Your task to perform on an android device: Search for "alienware area 51" on ebay.com, select the first entry, add it to the cart, then select checkout. Image 0: 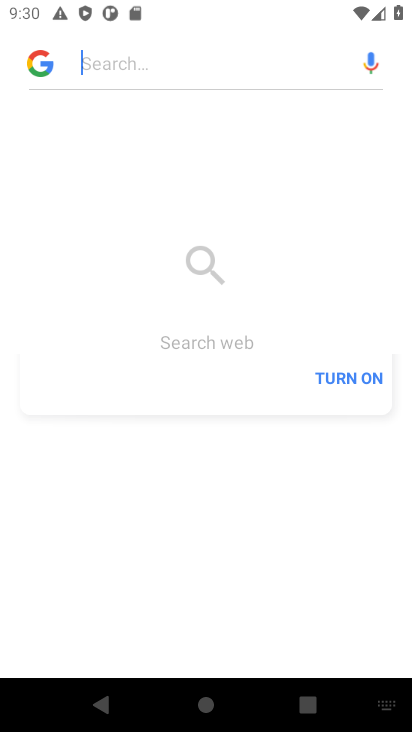
Step 0: press home button
Your task to perform on an android device: Search for "alienware area 51" on ebay.com, select the first entry, add it to the cart, then select checkout. Image 1: 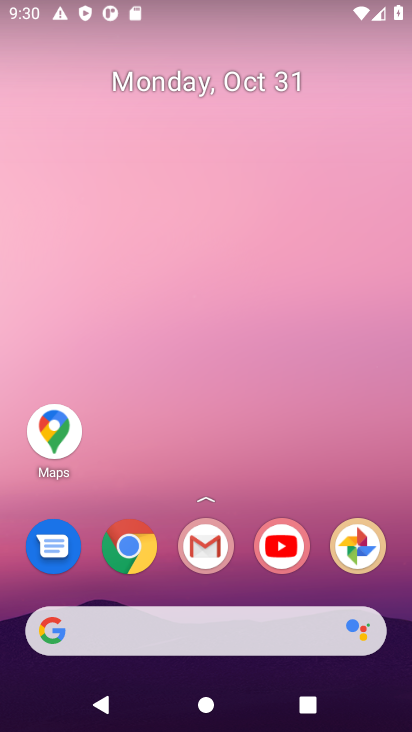
Step 1: click (131, 554)
Your task to perform on an android device: Search for "alienware area 51" on ebay.com, select the first entry, add it to the cart, then select checkout. Image 2: 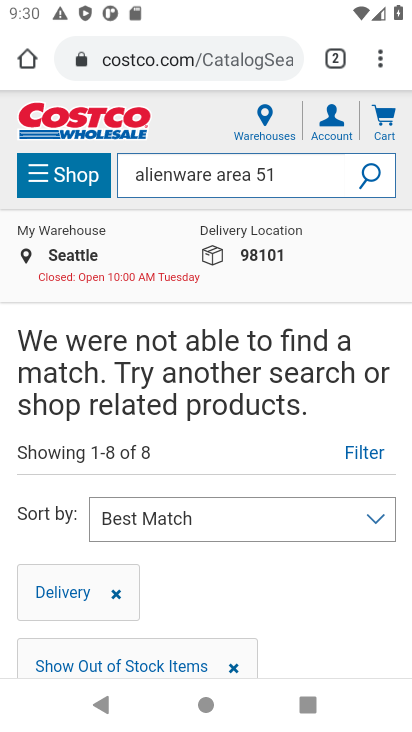
Step 2: click (154, 43)
Your task to perform on an android device: Search for "alienware area 51" on ebay.com, select the first entry, add it to the cart, then select checkout. Image 3: 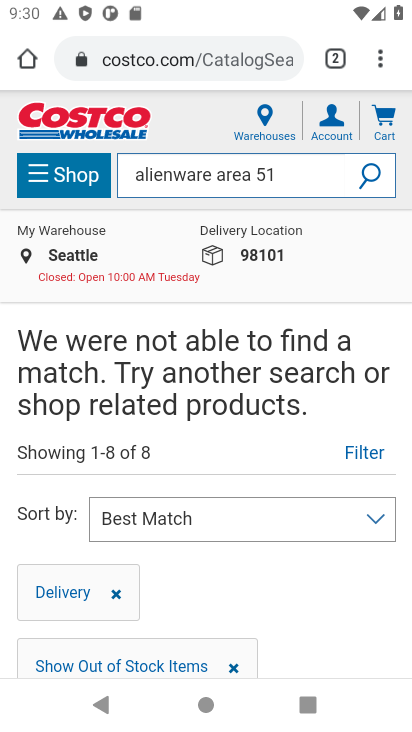
Step 3: click (155, 60)
Your task to perform on an android device: Search for "alienware area 51" on ebay.com, select the first entry, add it to the cart, then select checkout. Image 4: 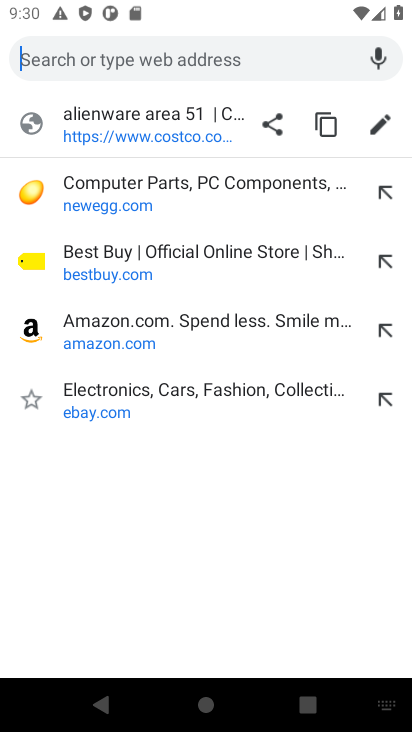
Step 4: type "ebay.com"
Your task to perform on an android device: Search for "alienware area 51" on ebay.com, select the first entry, add it to the cart, then select checkout. Image 5: 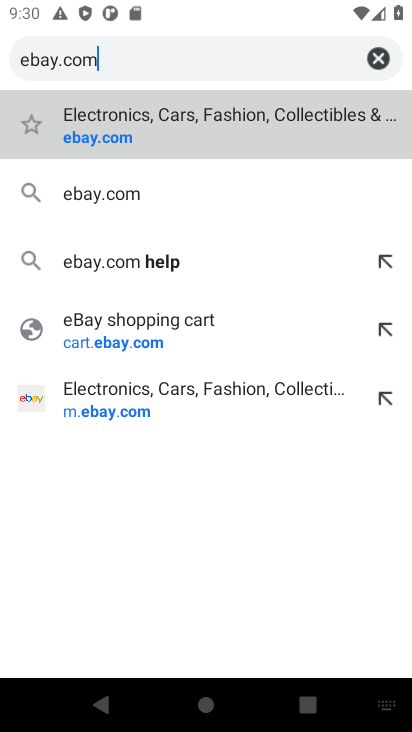
Step 5: press enter
Your task to perform on an android device: Search for "alienware area 51" on ebay.com, select the first entry, add it to the cart, then select checkout. Image 6: 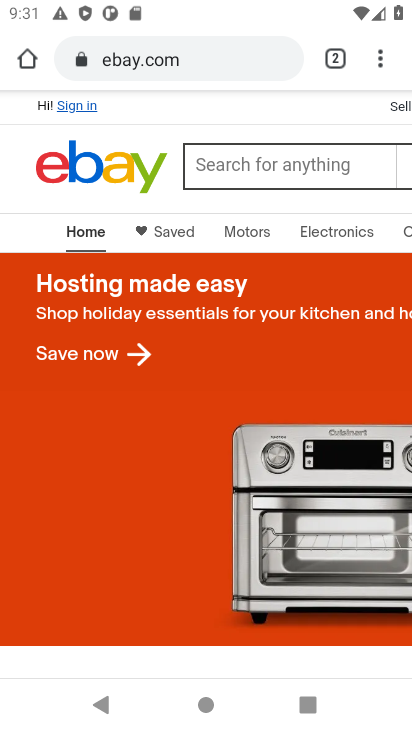
Step 6: click (278, 164)
Your task to perform on an android device: Search for "alienware area 51" on ebay.com, select the first entry, add it to the cart, then select checkout. Image 7: 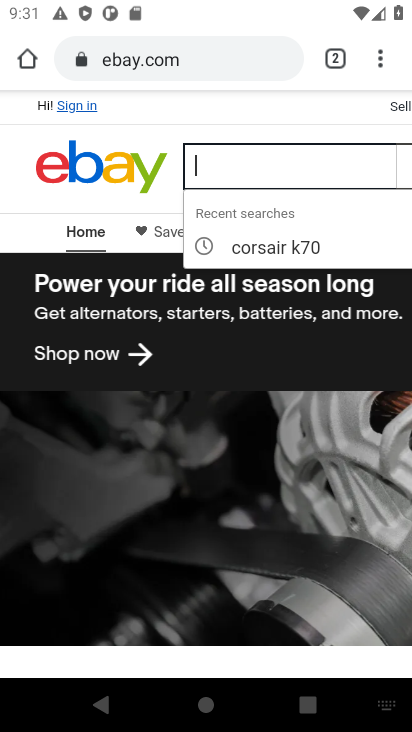
Step 7: type "alienware area 51"
Your task to perform on an android device: Search for "alienware area 51" on ebay.com, select the first entry, add it to the cart, then select checkout. Image 8: 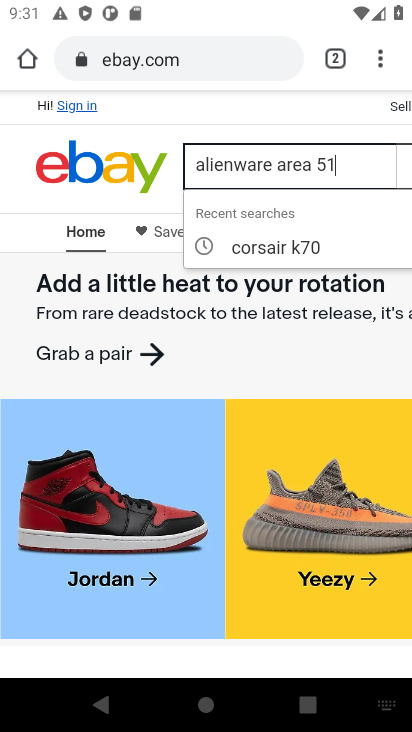
Step 8: press enter
Your task to perform on an android device: Search for "alienware area 51" on ebay.com, select the first entry, add it to the cart, then select checkout. Image 9: 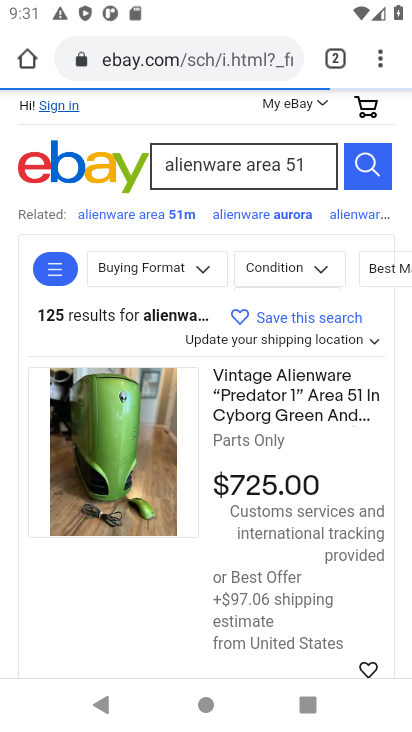
Step 9: click (141, 496)
Your task to perform on an android device: Search for "alienware area 51" on ebay.com, select the first entry, add it to the cart, then select checkout. Image 10: 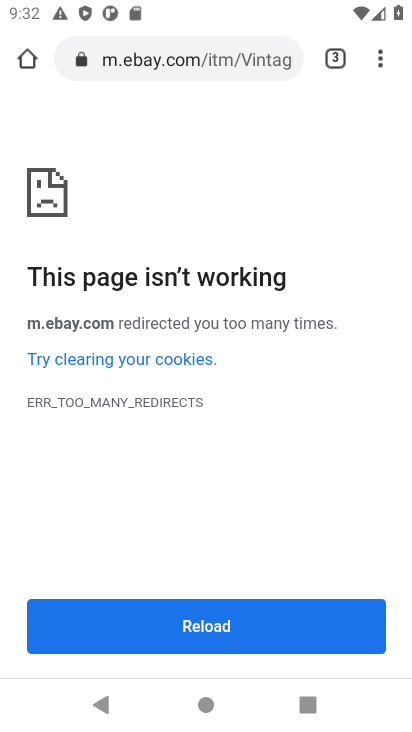
Step 10: task complete